Your task to perform on an android device: turn smart compose on in the gmail app Image 0: 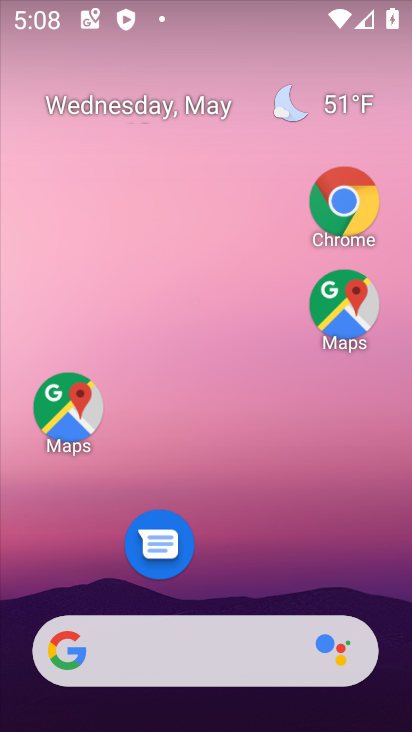
Step 0: drag from (255, 581) to (260, 198)
Your task to perform on an android device: turn smart compose on in the gmail app Image 1: 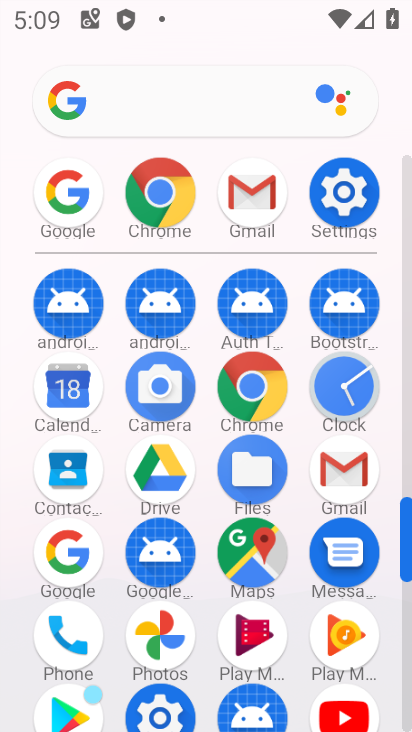
Step 1: click (261, 198)
Your task to perform on an android device: turn smart compose on in the gmail app Image 2: 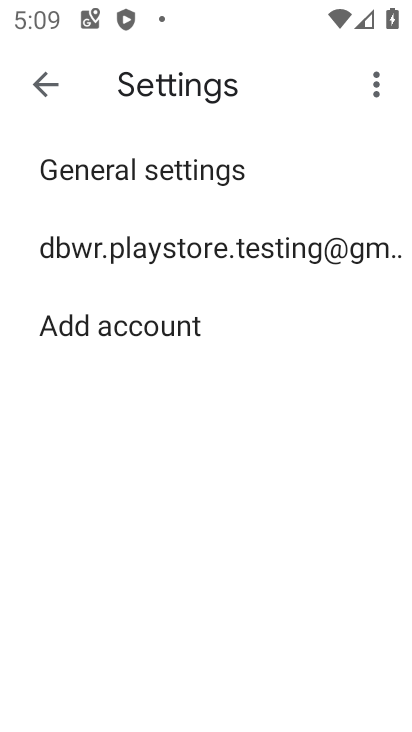
Step 2: click (214, 260)
Your task to perform on an android device: turn smart compose on in the gmail app Image 3: 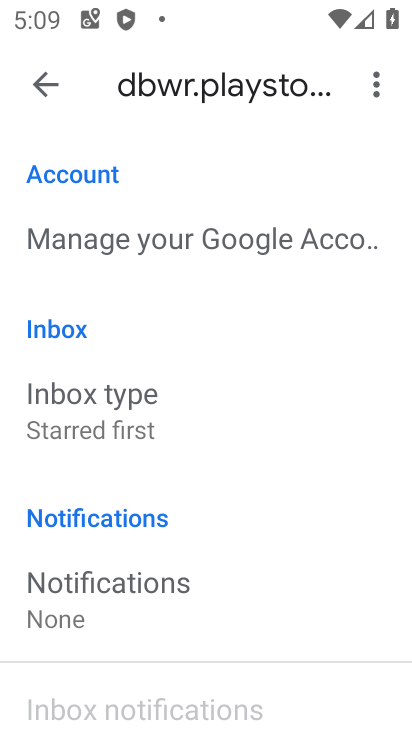
Step 3: task complete